Your task to perform on an android device: Go to Yahoo.com Image 0: 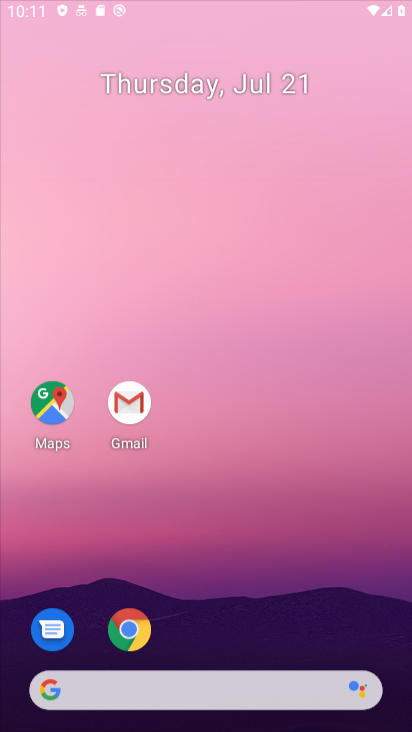
Step 0: press back button
Your task to perform on an android device: Go to Yahoo.com Image 1: 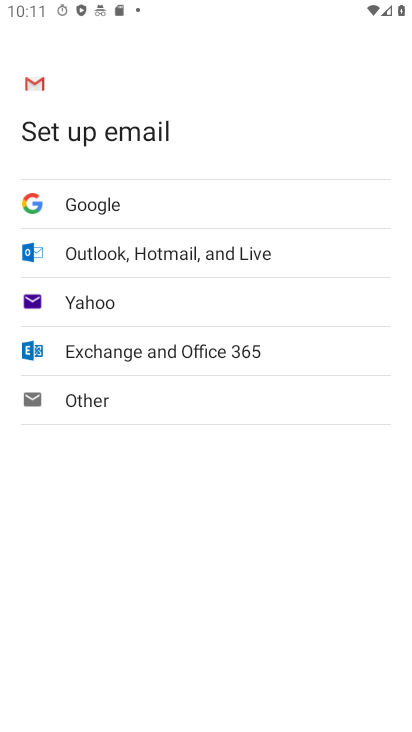
Step 1: press back button
Your task to perform on an android device: Go to Yahoo.com Image 2: 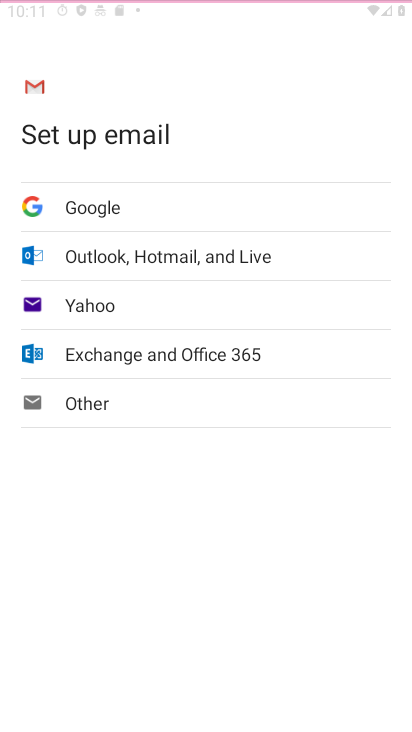
Step 2: drag from (195, 251) to (189, 204)
Your task to perform on an android device: Go to Yahoo.com Image 3: 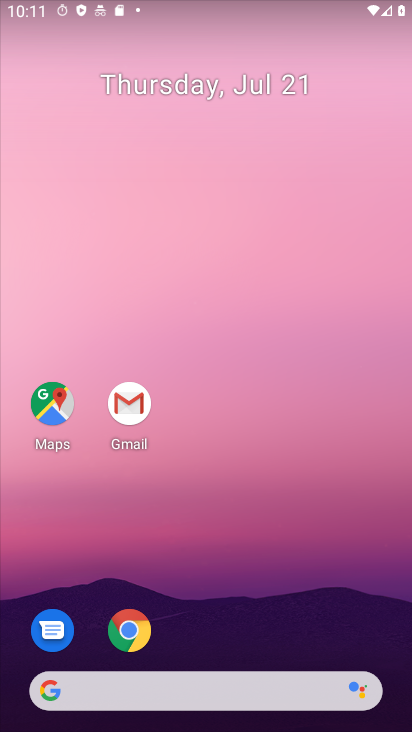
Step 3: drag from (257, 310) to (244, 60)
Your task to perform on an android device: Go to Yahoo.com Image 4: 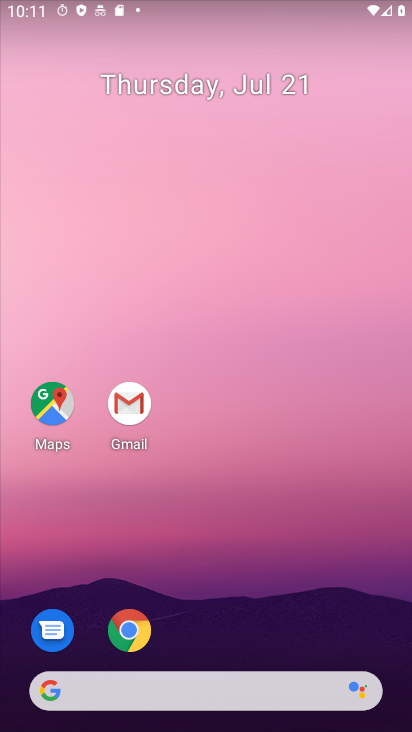
Step 4: drag from (221, 680) to (226, 75)
Your task to perform on an android device: Go to Yahoo.com Image 5: 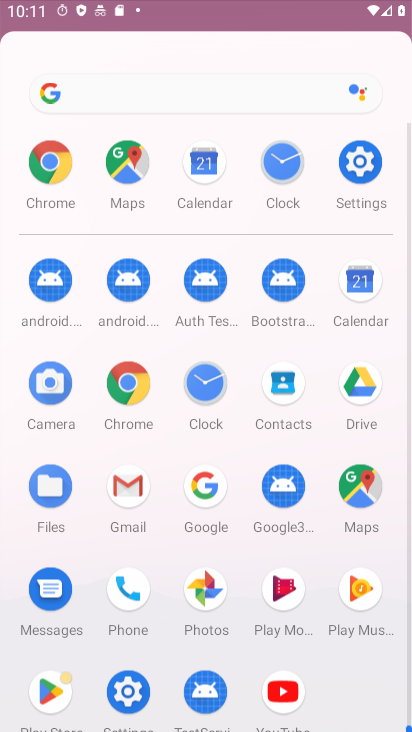
Step 5: drag from (291, 399) to (339, 77)
Your task to perform on an android device: Go to Yahoo.com Image 6: 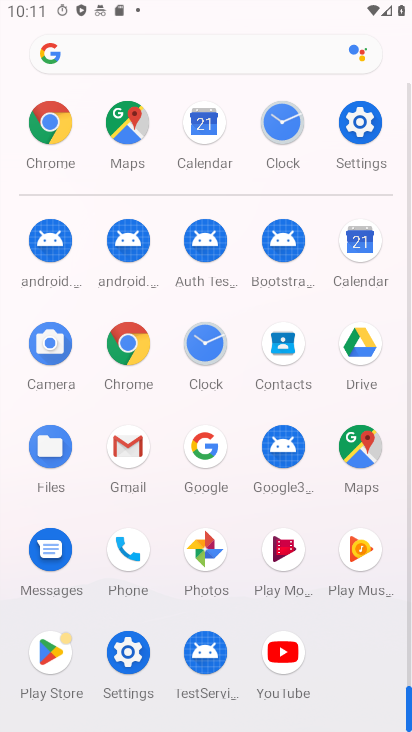
Step 6: click (116, 353)
Your task to perform on an android device: Go to Yahoo.com Image 7: 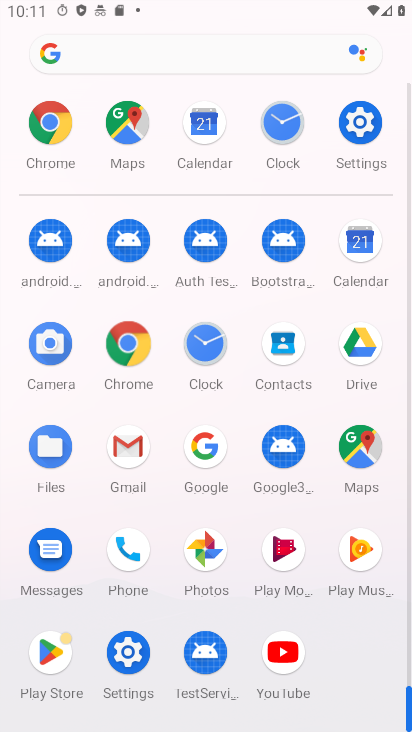
Step 7: click (118, 355)
Your task to perform on an android device: Go to Yahoo.com Image 8: 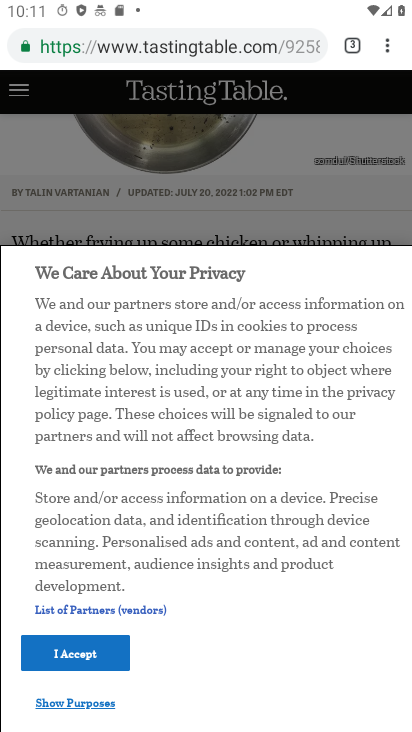
Step 8: click (378, 51)
Your task to perform on an android device: Go to Yahoo.com Image 9: 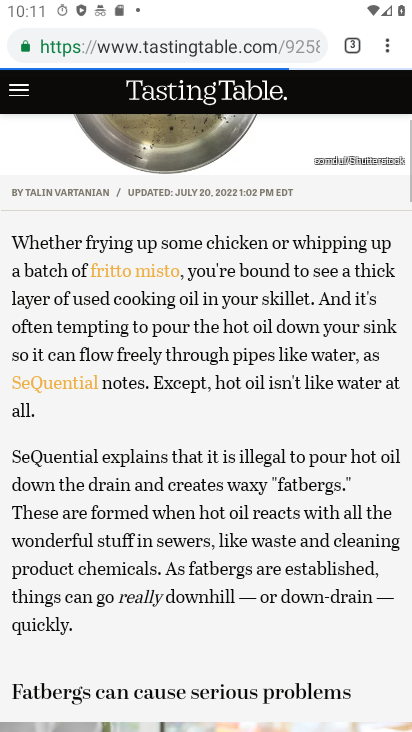
Step 9: click (388, 40)
Your task to perform on an android device: Go to Yahoo.com Image 10: 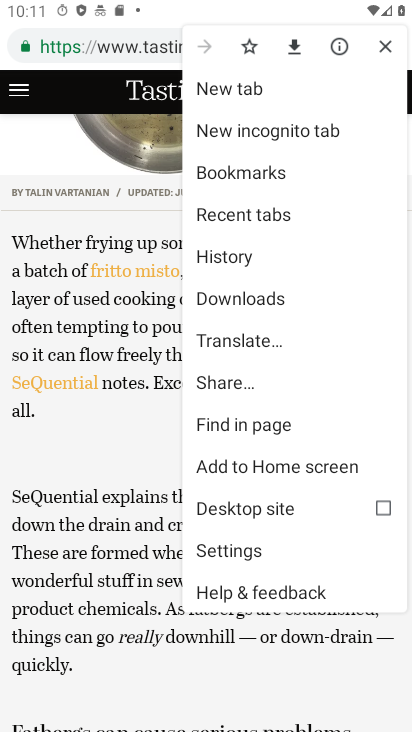
Step 10: click (241, 82)
Your task to perform on an android device: Go to Yahoo.com Image 11: 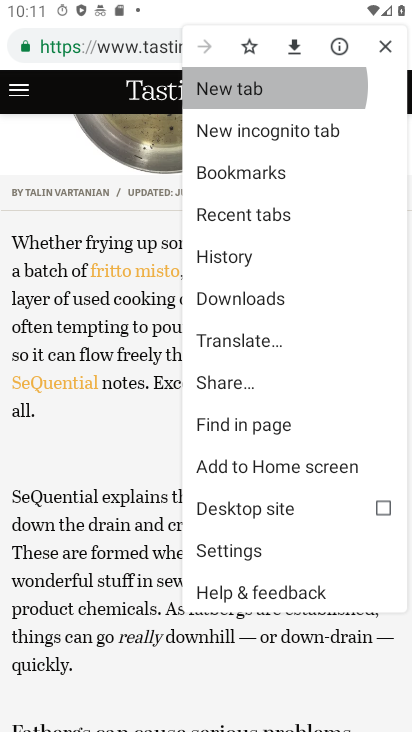
Step 11: click (242, 81)
Your task to perform on an android device: Go to Yahoo.com Image 12: 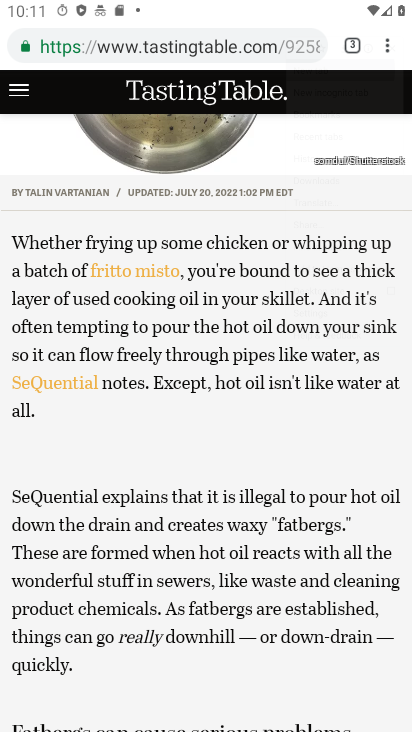
Step 12: click (243, 82)
Your task to perform on an android device: Go to Yahoo.com Image 13: 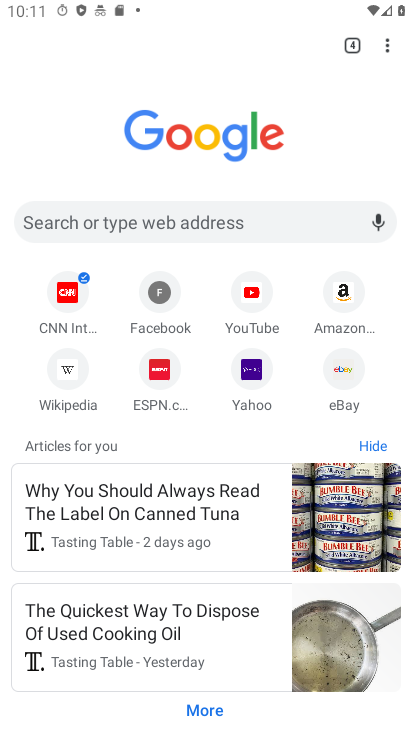
Step 13: click (234, 365)
Your task to perform on an android device: Go to Yahoo.com Image 14: 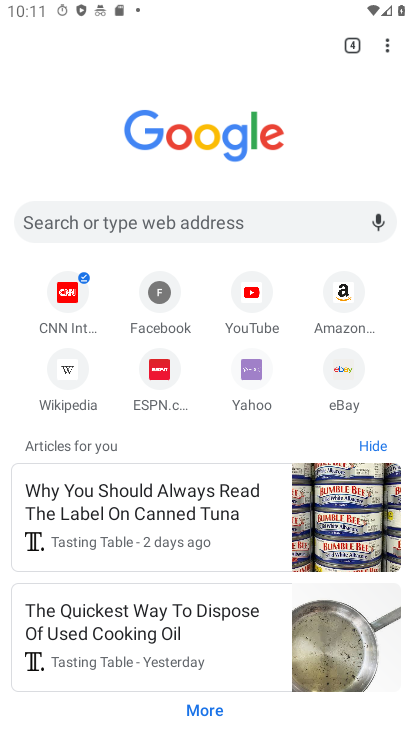
Step 14: click (255, 372)
Your task to perform on an android device: Go to Yahoo.com Image 15: 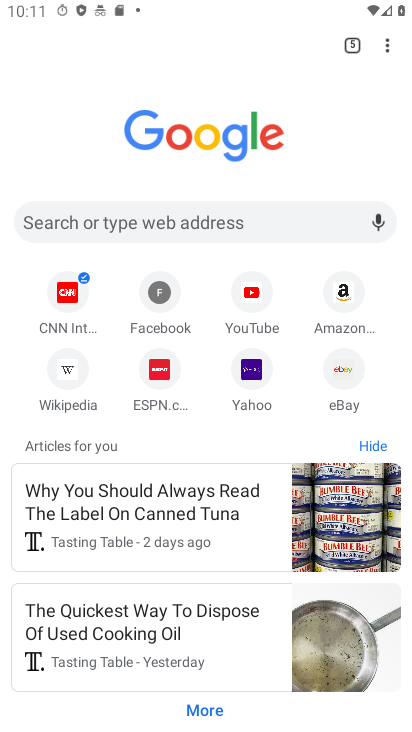
Step 15: click (253, 368)
Your task to perform on an android device: Go to Yahoo.com Image 16: 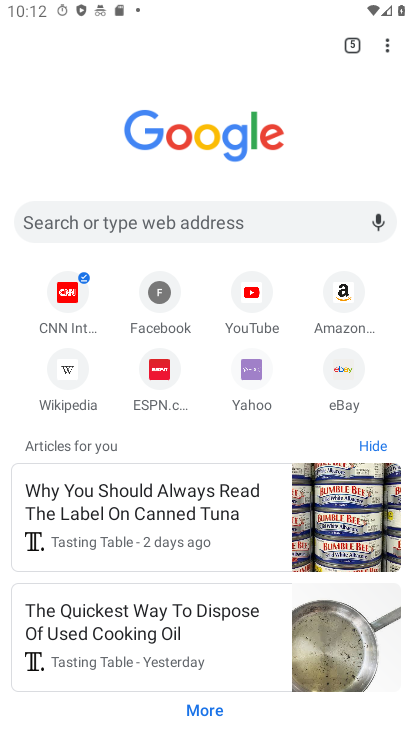
Step 16: click (252, 369)
Your task to perform on an android device: Go to Yahoo.com Image 17: 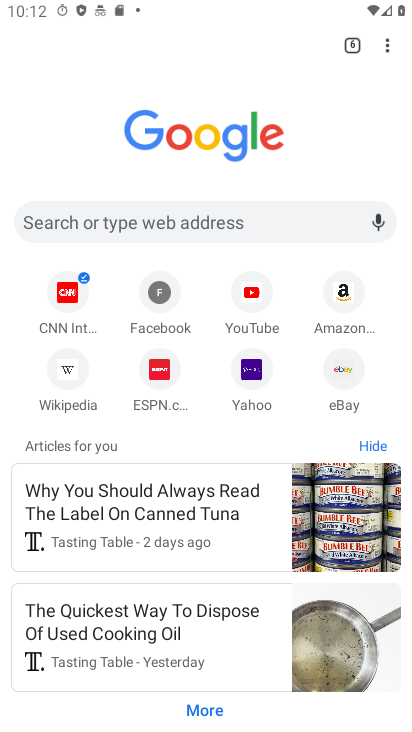
Step 17: click (256, 381)
Your task to perform on an android device: Go to Yahoo.com Image 18: 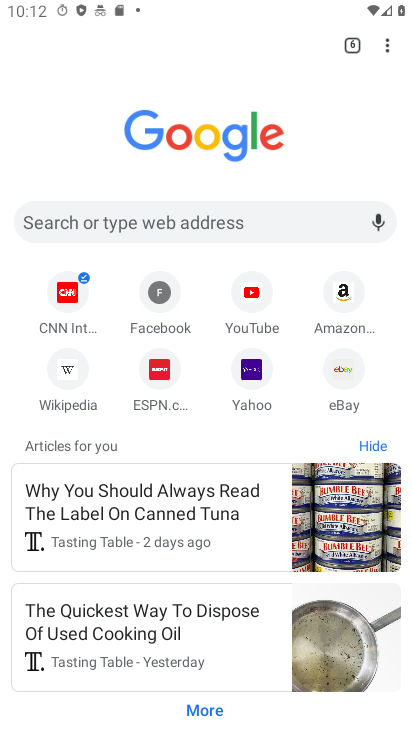
Step 18: click (258, 393)
Your task to perform on an android device: Go to Yahoo.com Image 19: 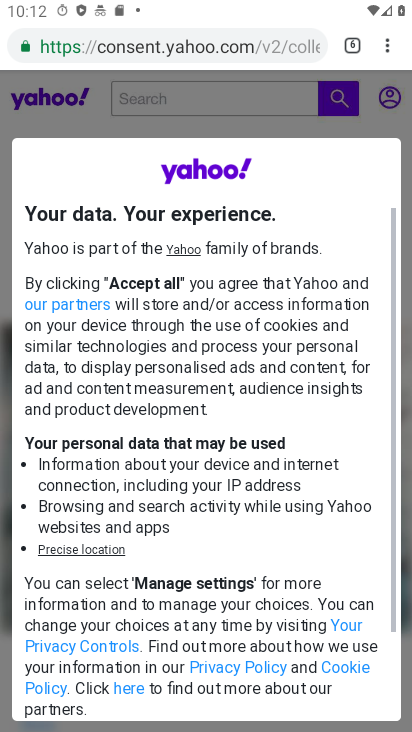
Step 19: task complete